Your task to perform on an android device: Open the stopwatch Image 0: 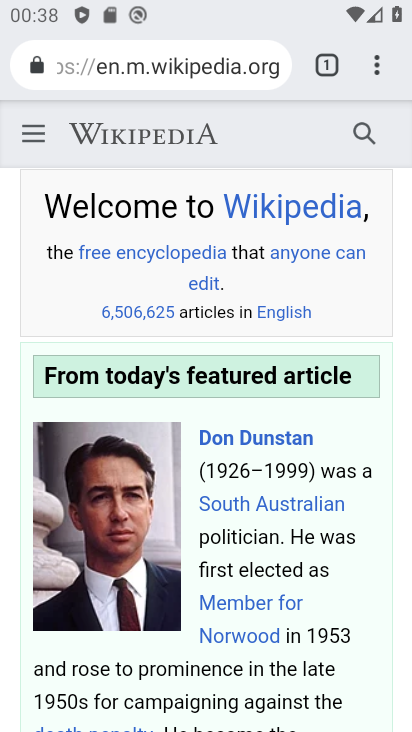
Step 0: press home button
Your task to perform on an android device: Open the stopwatch Image 1: 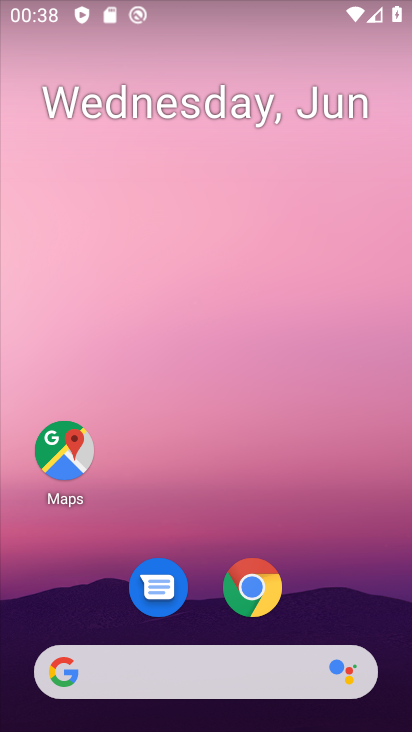
Step 1: drag from (321, 496) to (295, 62)
Your task to perform on an android device: Open the stopwatch Image 2: 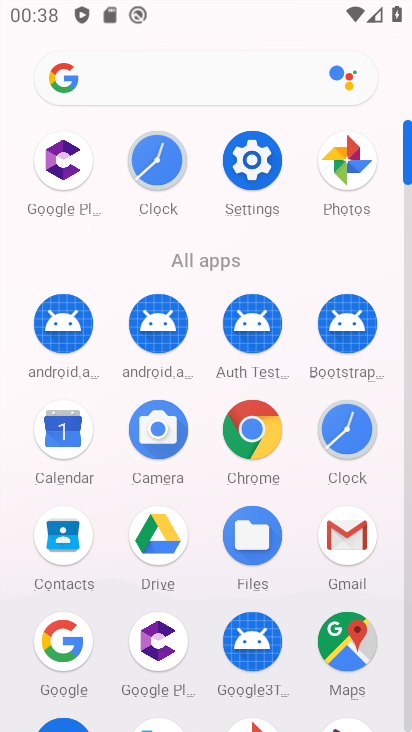
Step 2: click (347, 447)
Your task to perform on an android device: Open the stopwatch Image 3: 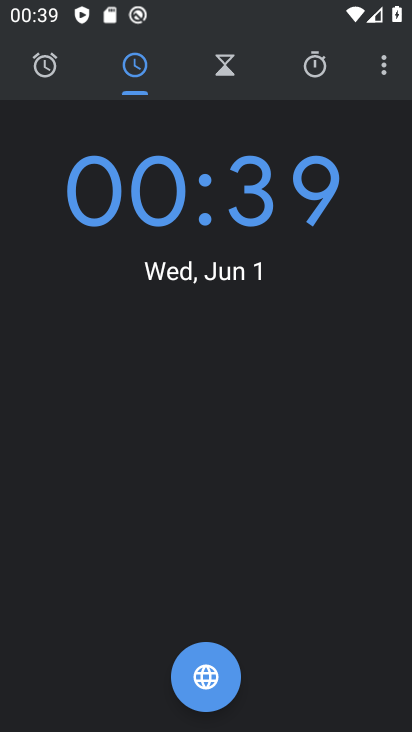
Step 3: click (315, 52)
Your task to perform on an android device: Open the stopwatch Image 4: 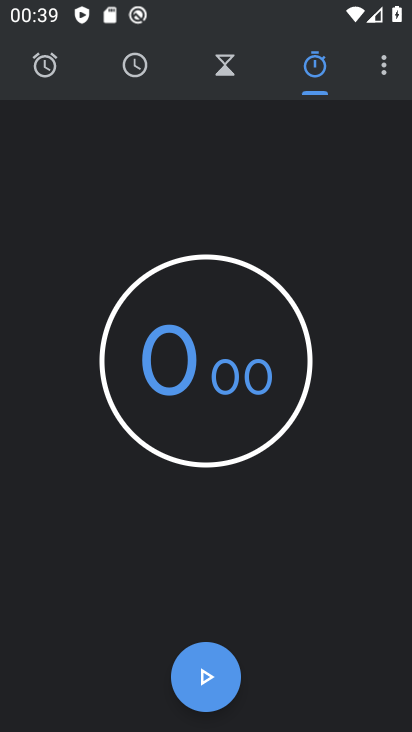
Step 4: task complete